Your task to perform on an android device: Clear the cart on amazon.com. Search for "usb-c to usb-a" on amazon.com, select the first entry, add it to the cart, then select checkout. Image 0: 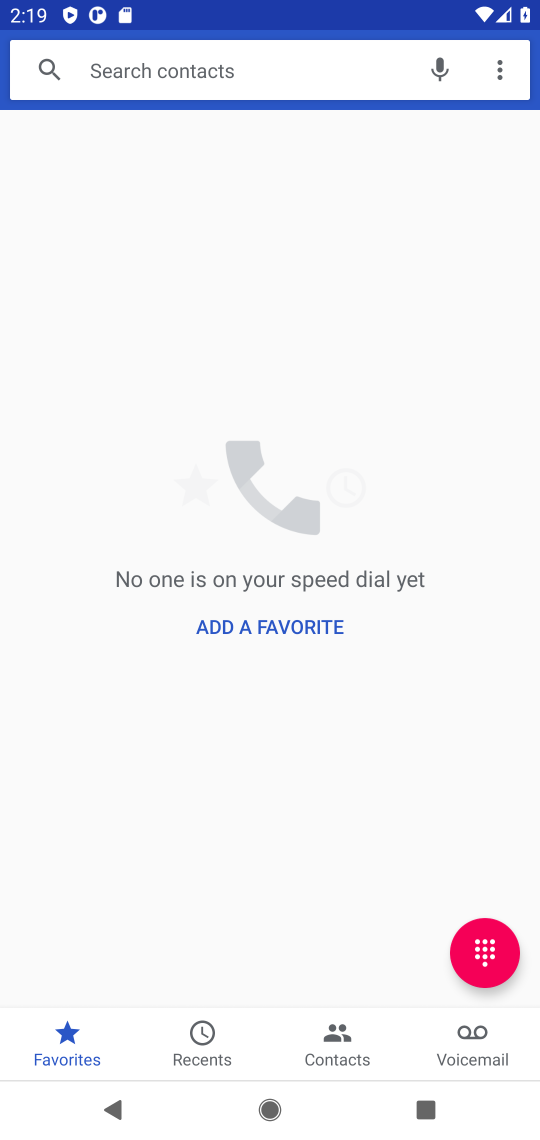
Step 0: press home button
Your task to perform on an android device: Clear the cart on amazon.com. Search for "usb-c to usb-a" on amazon.com, select the first entry, add it to the cart, then select checkout. Image 1: 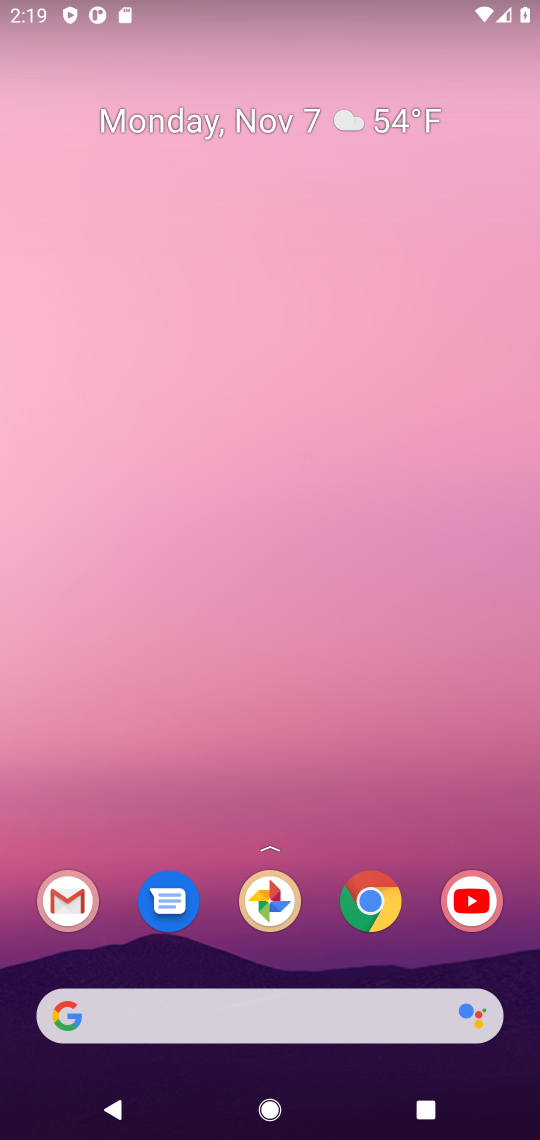
Step 1: click (375, 912)
Your task to perform on an android device: Clear the cart on amazon.com. Search for "usb-c to usb-a" on amazon.com, select the first entry, add it to the cart, then select checkout. Image 2: 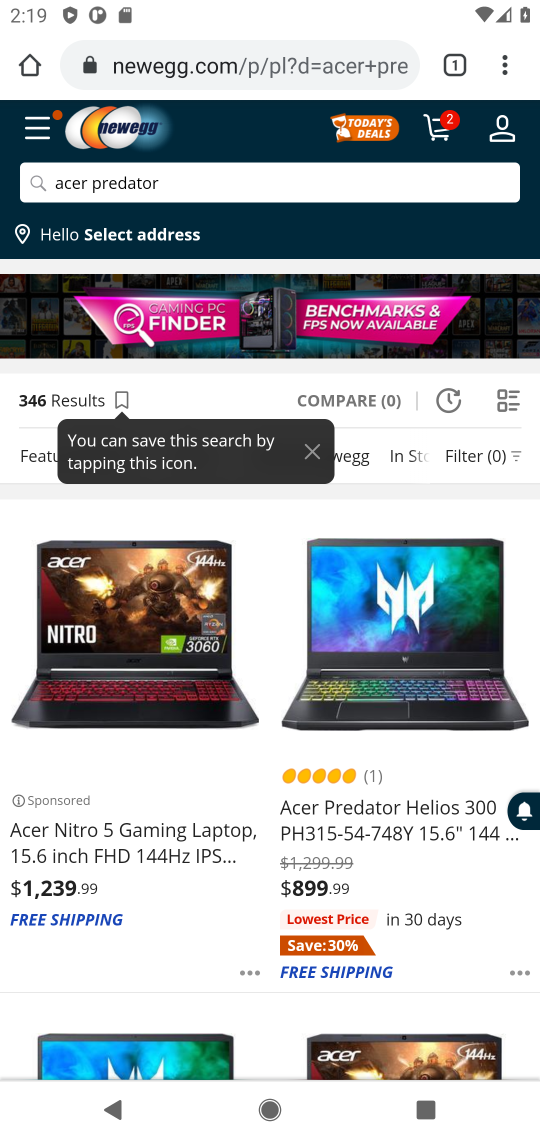
Step 2: click (203, 76)
Your task to perform on an android device: Clear the cart on amazon.com. Search for "usb-c to usb-a" on amazon.com, select the first entry, add it to the cart, then select checkout. Image 3: 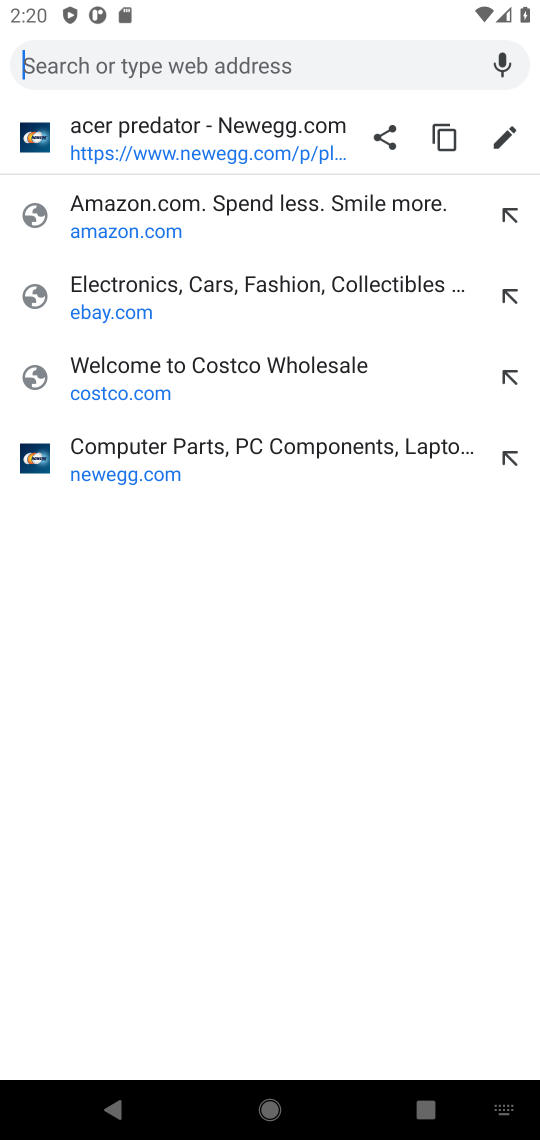
Step 3: click (162, 228)
Your task to perform on an android device: Clear the cart on amazon.com. Search for "usb-c to usb-a" on amazon.com, select the first entry, add it to the cart, then select checkout. Image 4: 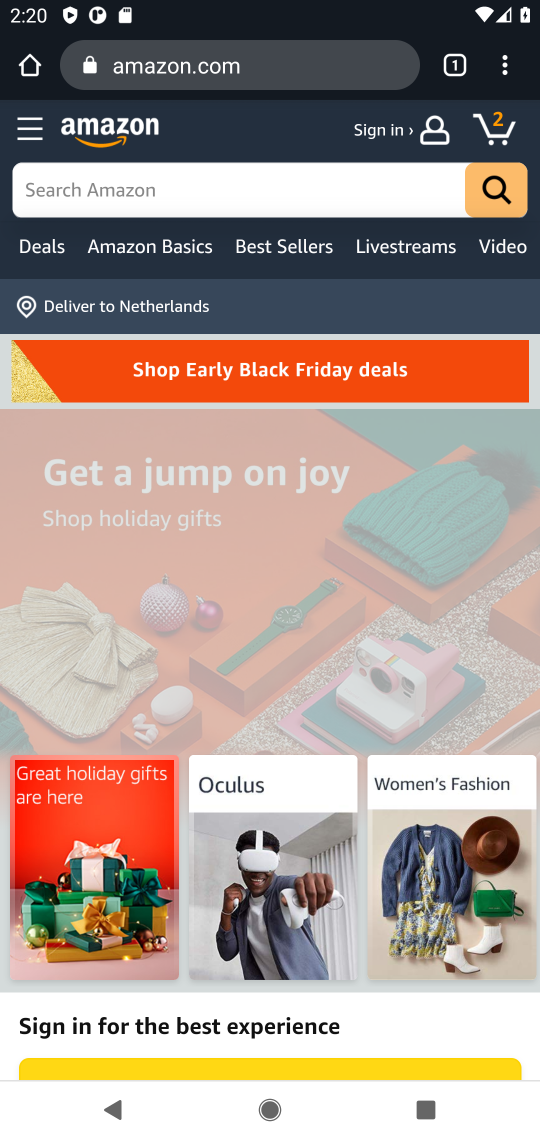
Step 4: click (499, 135)
Your task to perform on an android device: Clear the cart on amazon.com. Search for "usb-c to usb-a" on amazon.com, select the first entry, add it to the cart, then select checkout. Image 5: 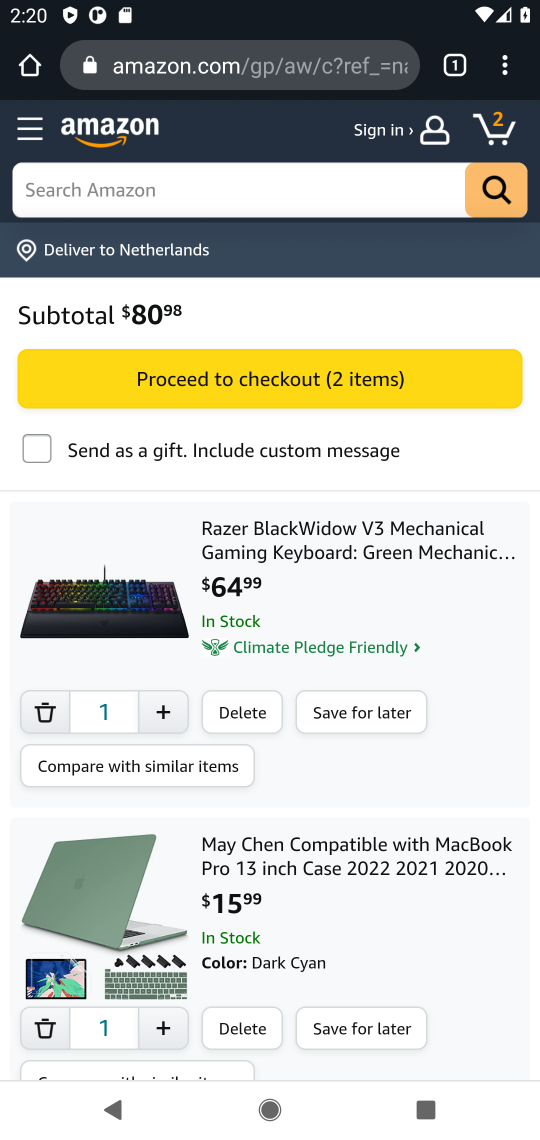
Step 5: click (255, 712)
Your task to perform on an android device: Clear the cart on amazon.com. Search for "usb-c to usb-a" on amazon.com, select the first entry, add it to the cart, then select checkout. Image 6: 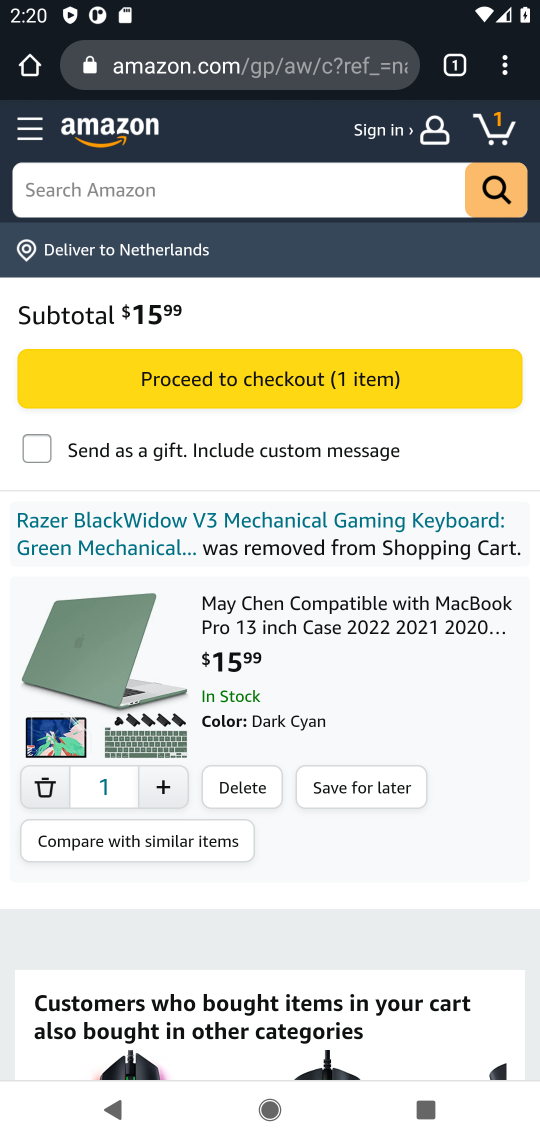
Step 6: click (255, 788)
Your task to perform on an android device: Clear the cart on amazon.com. Search for "usb-c to usb-a" on amazon.com, select the first entry, add it to the cart, then select checkout. Image 7: 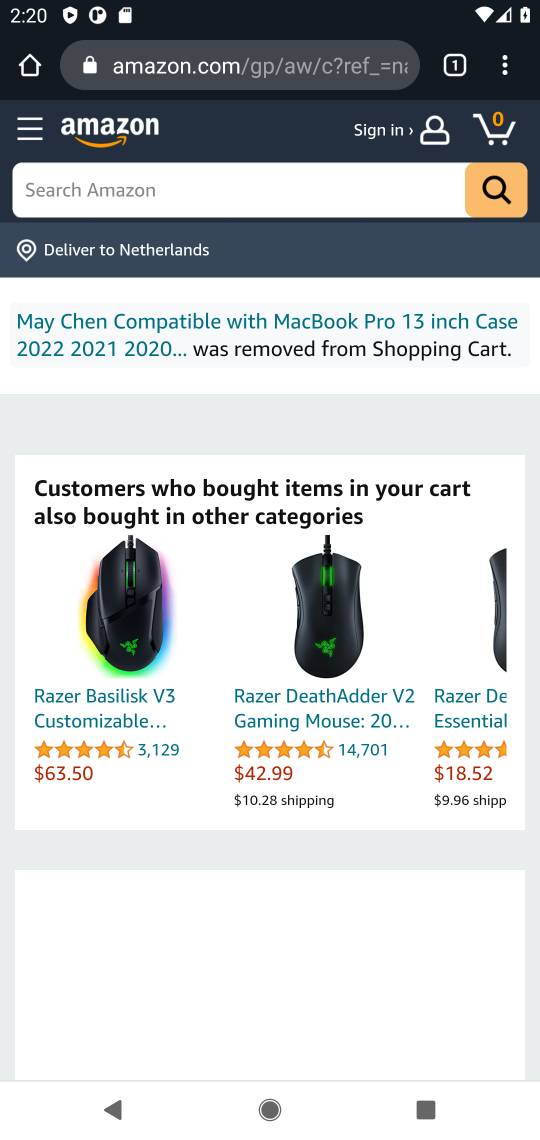
Step 7: click (133, 196)
Your task to perform on an android device: Clear the cart on amazon.com. Search for "usb-c to usb-a" on amazon.com, select the first entry, add it to the cart, then select checkout. Image 8: 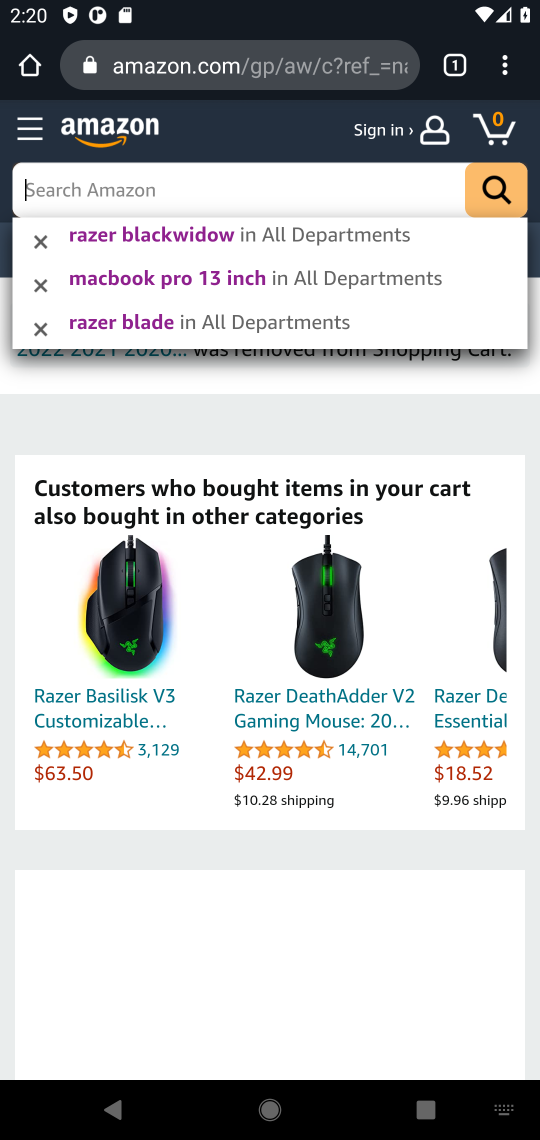
Step 8: type "usb-c to usb-a"
Your task to perform on an android device: Clear the cart on amazon.com. Search for "usb-c to usb-a" on amazon.com, select the first entry, add it to the cart, then select checkout. Image 9: 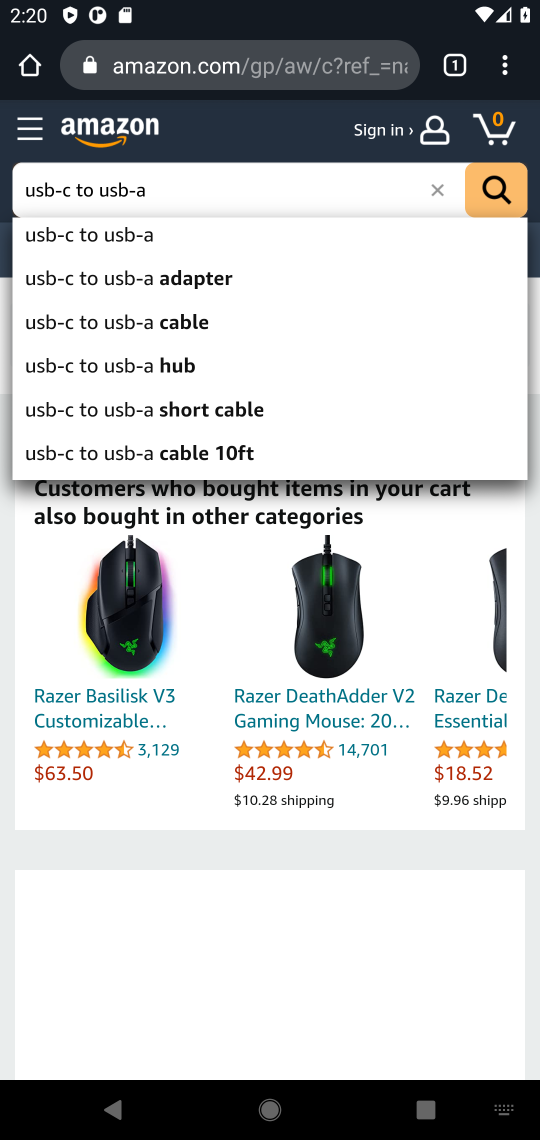
Step 9: click (94, 236)
Your task to perform on an android device: Clear the cart on amazon.com. Search for "usb-c to usb-a" on amazon.com, select the first entry, add it to the cart, then select checkout. Image 10: 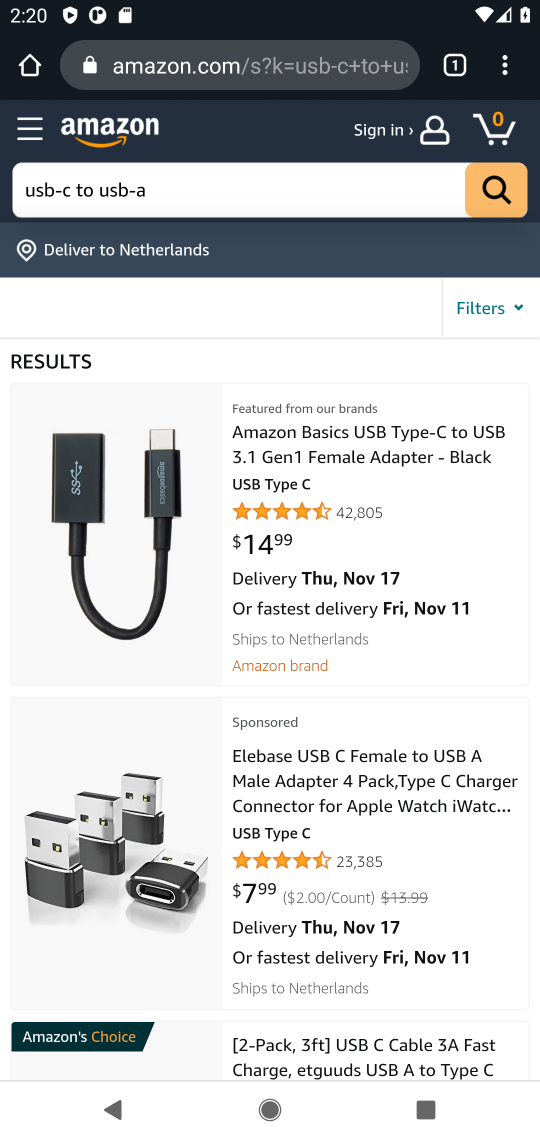
Step 10: task complete